Your task to perform on an android device: Open Google Chrome and click the shortcut for Amazon.com Image 0: 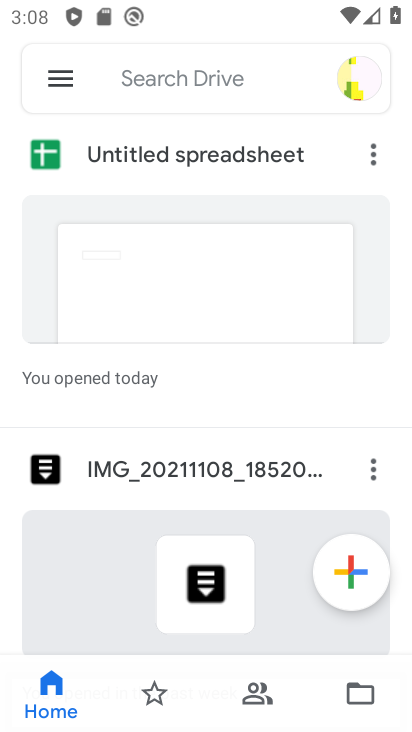
Step 0: press home button
Your task to perform on an android device: Open Google Chrome and click the shortcut for Amazon.com Image 1: 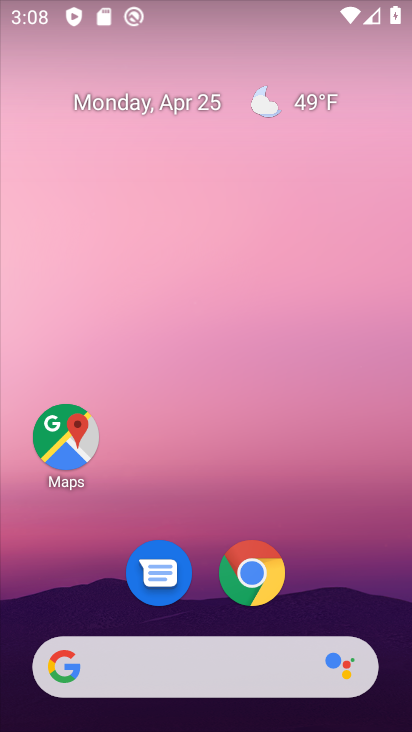
Step 1: click (269, 559)
Your task to perform on an android device: Open Google Chrome and click the shortcut for Amazon.com Image 2: 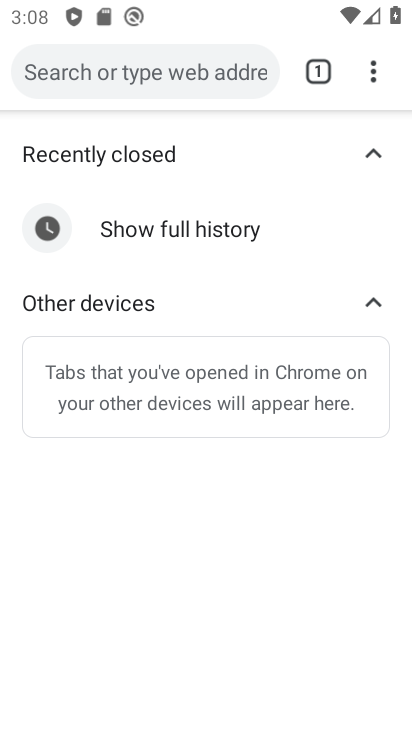
Step 2: click (319, 78)
Your task to perform on an android device: Open Google Chrome and click the shortcut for Amazon.com Image 3: 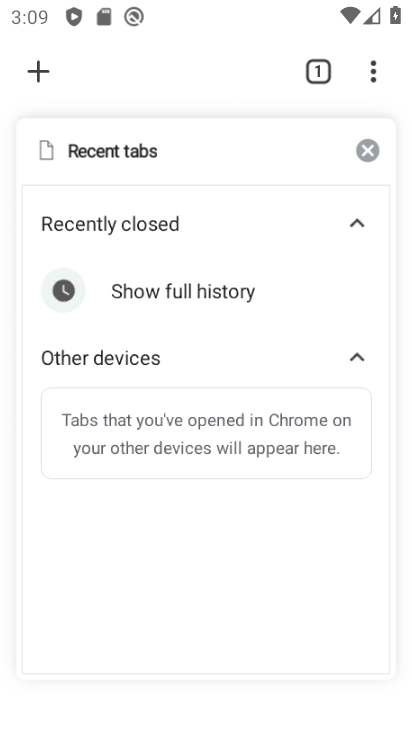
Step 3: click (371, 150)
Your task to perform on an android device: Open Google Chrome and click the shortcut for Amazon.com Image 4: 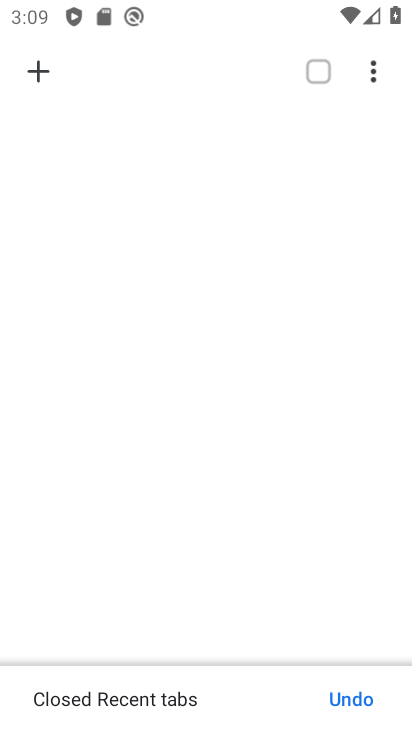
Step 4: click (40, 66)
Your task to perform on an android device: Open Google Chrome and click the shortcut for Amazon.com Image 5: 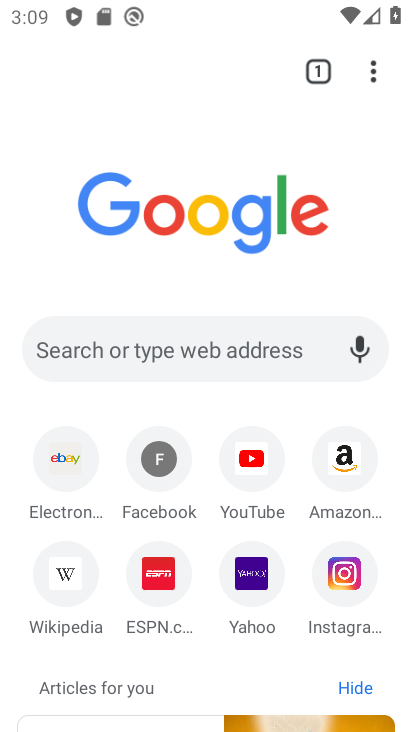
Step 5: click (338, 439)
Your task to perform on an android device: Open Google Chrome and click the shortcut for Amazon.com Image 6: 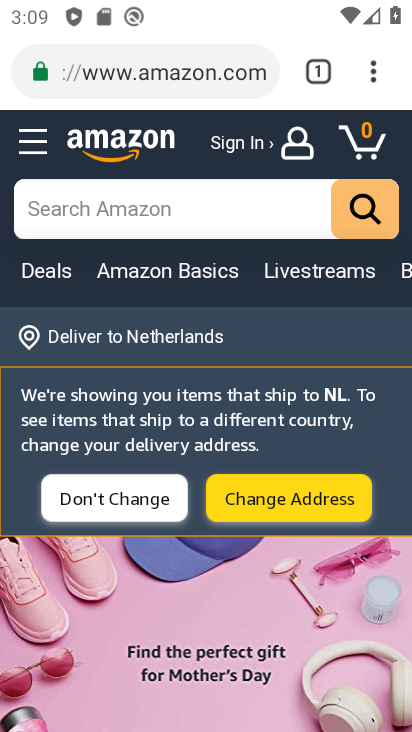
Step 6: task complete